Your task to perform on an android device: open a bookmark in the chrome app Image 0: 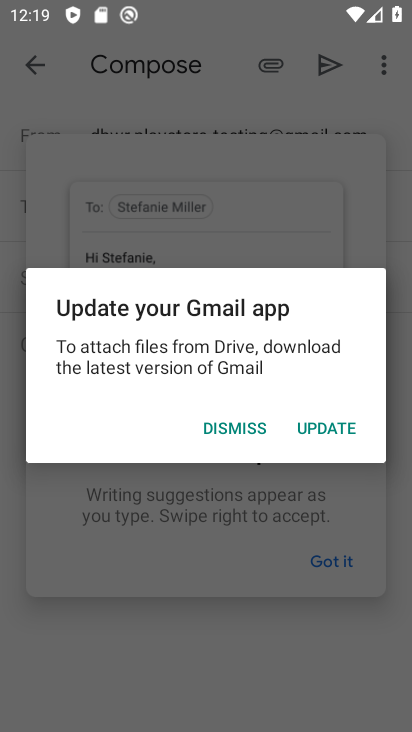
Step 0: press home button
Your task to perform on an android device: open a bookmark in the chrome app Image 1: 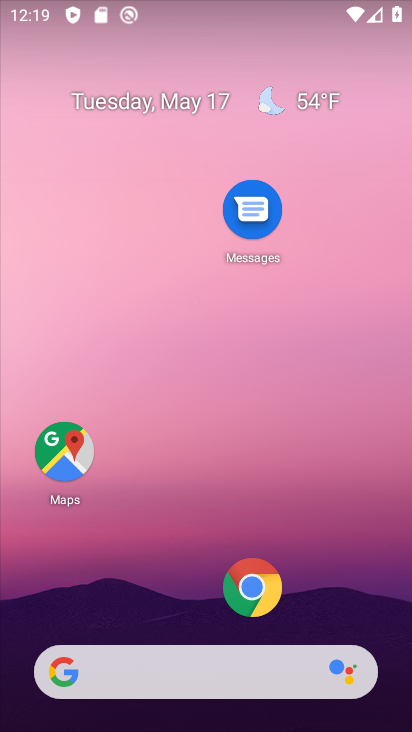
Step 1: click (247, 571)
Your task to perform on an android device: open a bookmark in the chrome app Image 2: 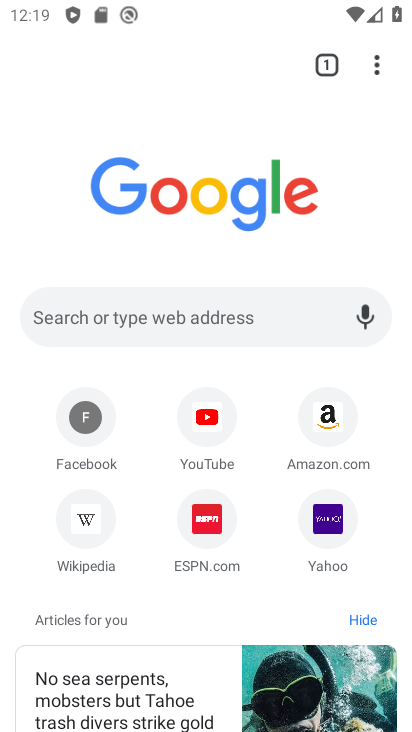
Step 2: click (379, 69)
Your task to perform on an android device: open a bookmark in the chrome app Image 3: 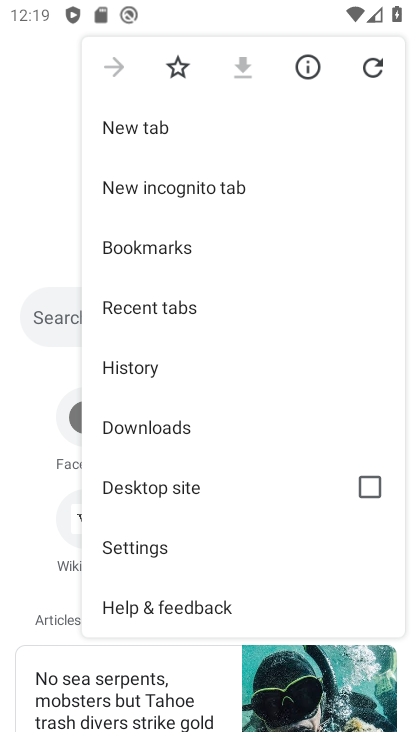
Step 3: click (165, 242)
Your task to perform on an android device: open a bookmark in the chrome app Image 4: 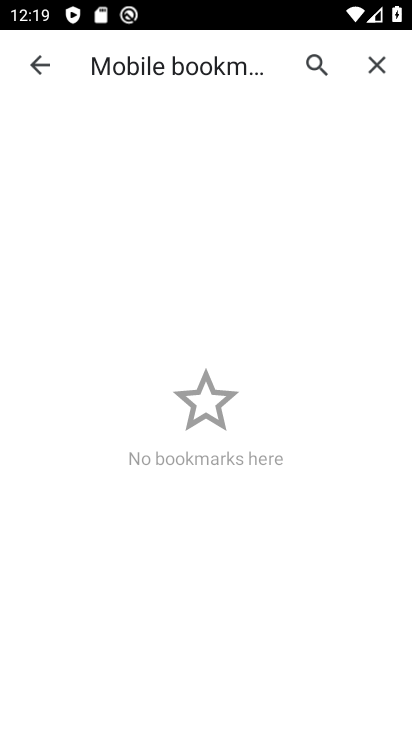
Step 4: task complete